Your task to perform on an android device: Open Google Chrome and open the bookmarks view Image 0: 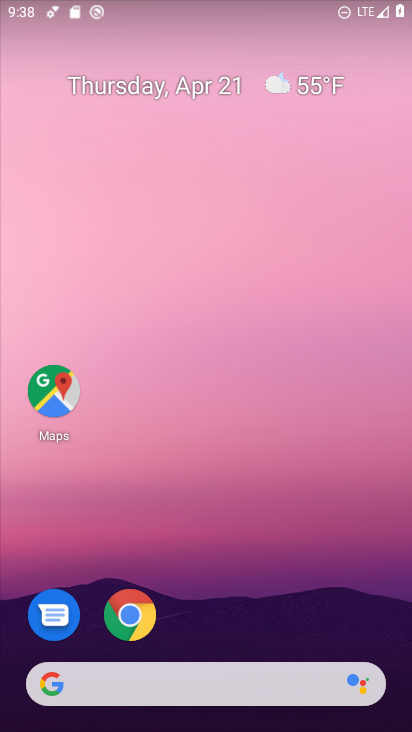
Step 0: click (317, 19)
Your task to perform on an android device: Open Google Chrome and open the bookmarks view Image 1: 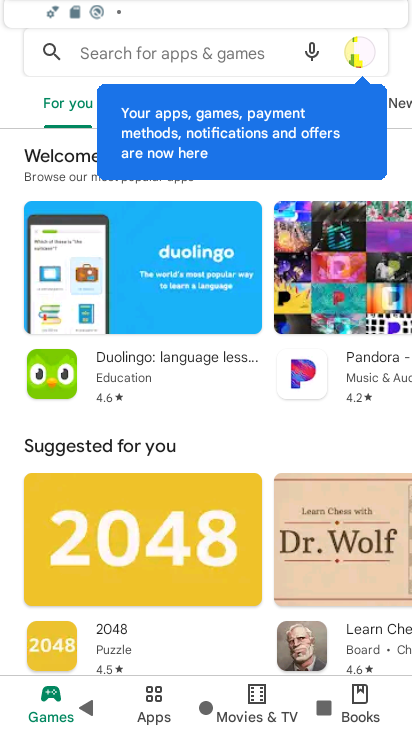
Step 1: press home button
Your task to perform on an android device: Open Google Chrome and open the bookmarks view Image 2: 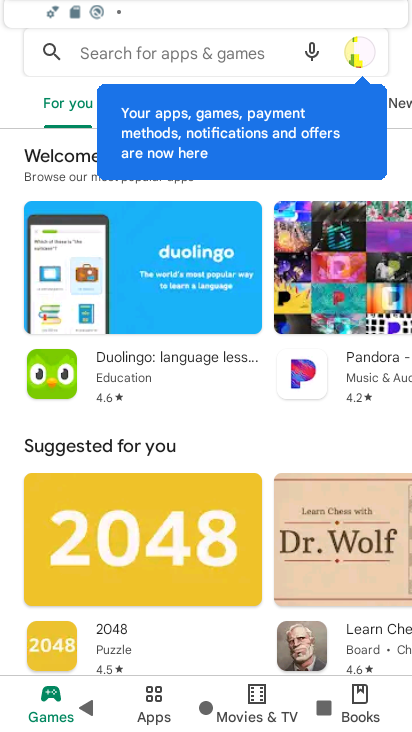
Step 2: click (404, 223)
Your task to perform on an android device: Open Google Chrome and open the bookmarks view Image 3: 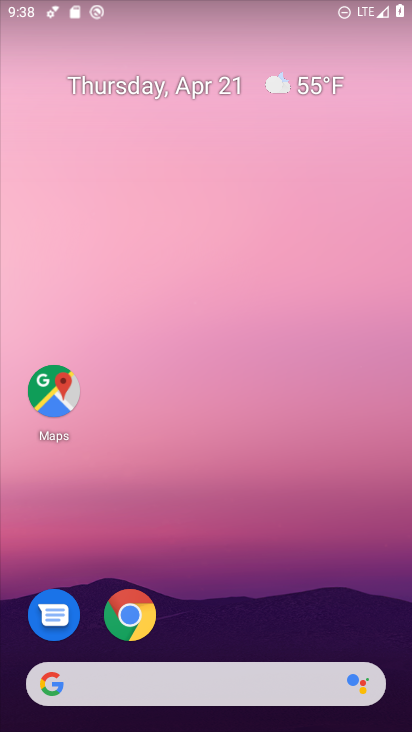
Step 3: click (122, 591)
Your task to perform on an android device: Open Google Chrome and open the bookmarks view Image 4: 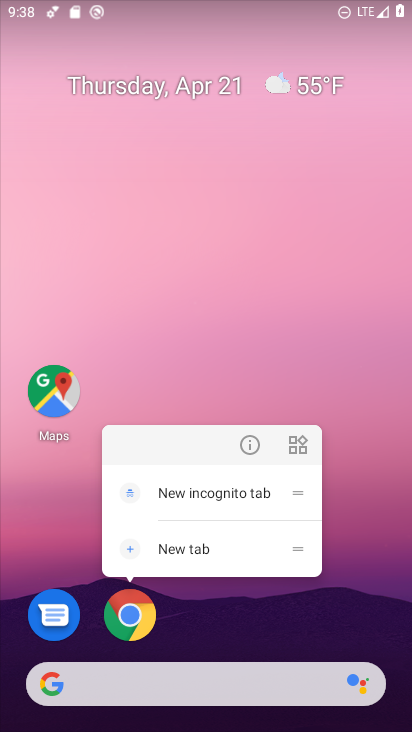
Step 4: click (119, 635)
Your task to perform on an android device: Open Google Chrome and open the bookmarks view Image 5: 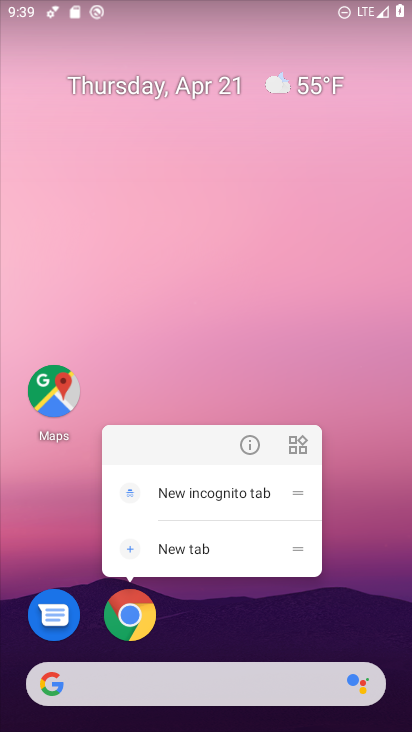
Step 5: click (119, 636)
Your task to perform on an android device: Open Google Chrome and open the bookmarks view Image 6: 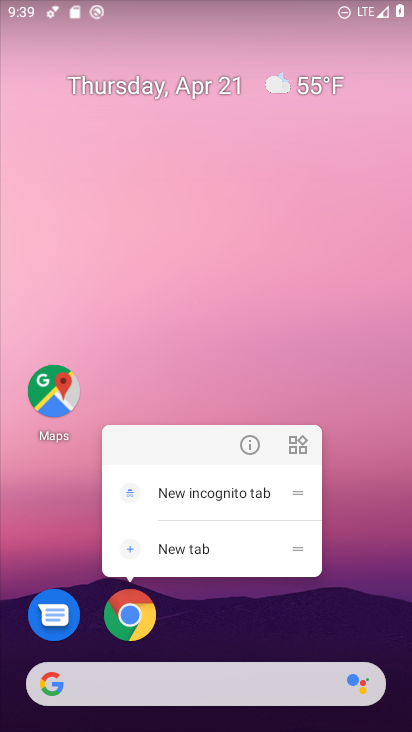
Step 6: click (119, 636)
Your task to perform on an android device: Open Google Chrome and open the bookmarks view Image 7: 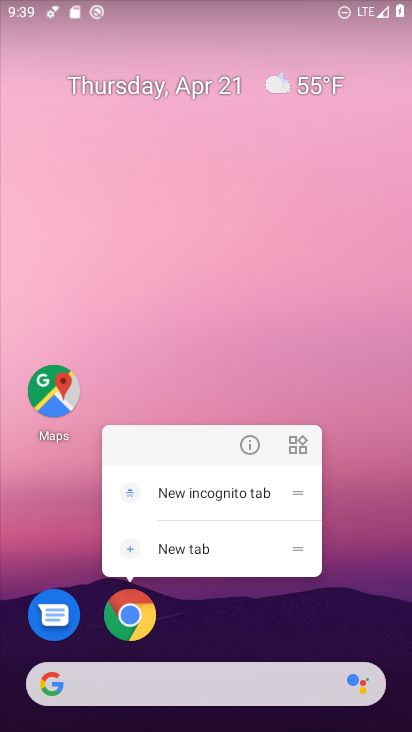
Step 7: click (116, 612)
Your task to perform on an android device: Open Google Chrome and open the bookmarks view Image 8: 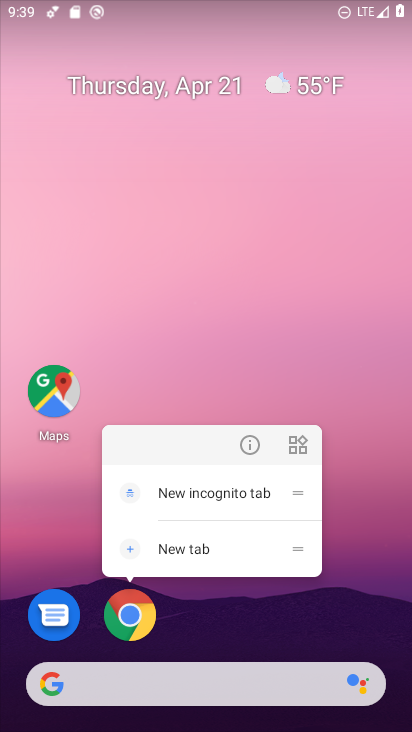
Step 8: click (116, 612)
Your task to perform on an android device: Open Google Chrome and open the bookmarks view Image 9: 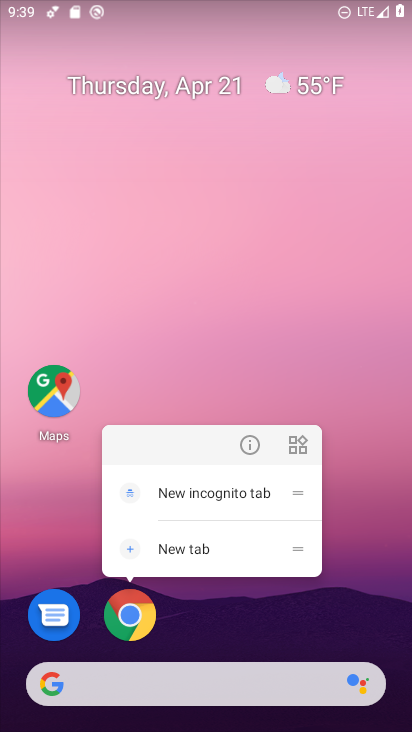
Step 9: click (116, 612)
Your task to perform on an android device: Open Google Chrome and open the bookmarks view Image 10: 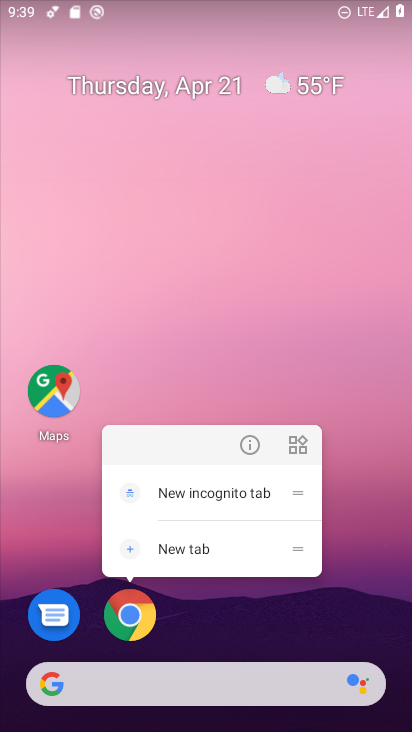
Step 10: click (116, 612)
Your task to perform on an android device: Open Google Chrome and open the bookmarks view Image 11: 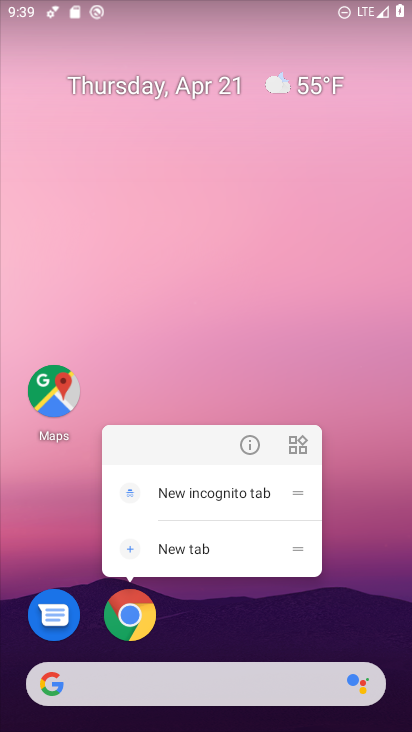
Step 11: click (116, 612)
Your task to perform on an android device: Open Google Chrome and open the bookmarks view Image 12: 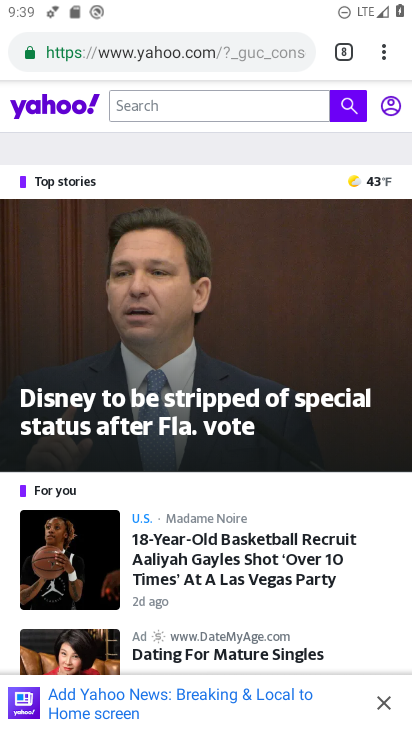
Step 12: task complete